Your task to perform on an android device: Open Google Maps and go to "Timeline" Image 0: 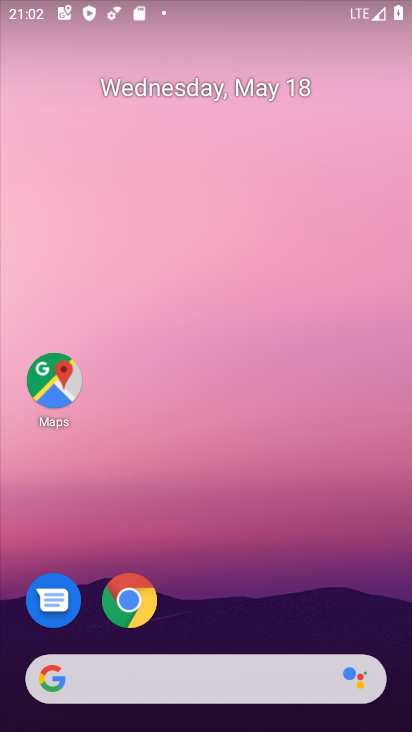
Step 0: click (41, 372)
Your task to perform on an android device: Open Google Maps and go to "Timeline" Image 1: 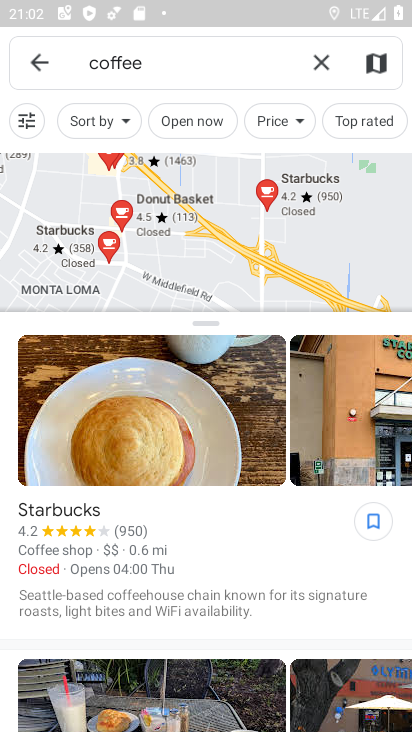
Step 1: click (35, 59)
Your task to perform on an android device: Open Google Maps and go to "Timeline" Image 2: 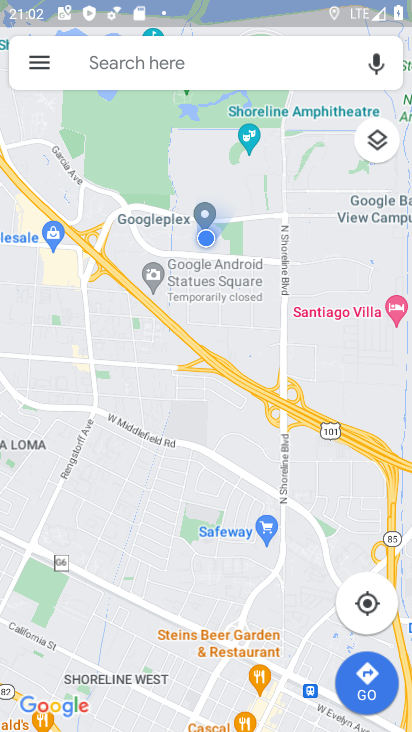
Step 2: click (35, 59)
Your task to perform on an android device: Open Google Maps and go to "Timeline" Image 3: 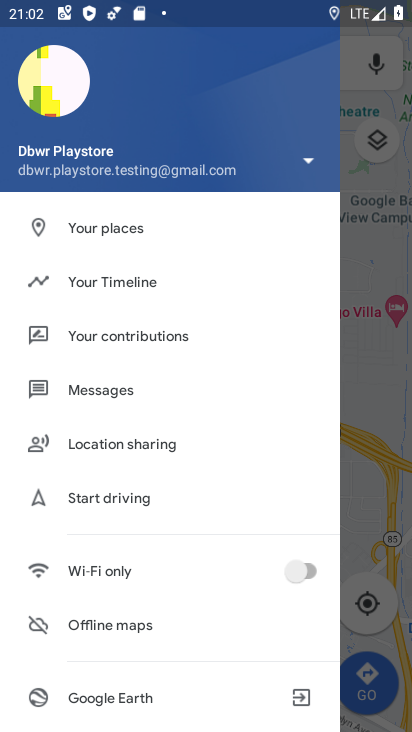
Step 3: click (98, 275)
Your task to perform on an android device: Open Google Maps and go to "Timeline" Image 4: 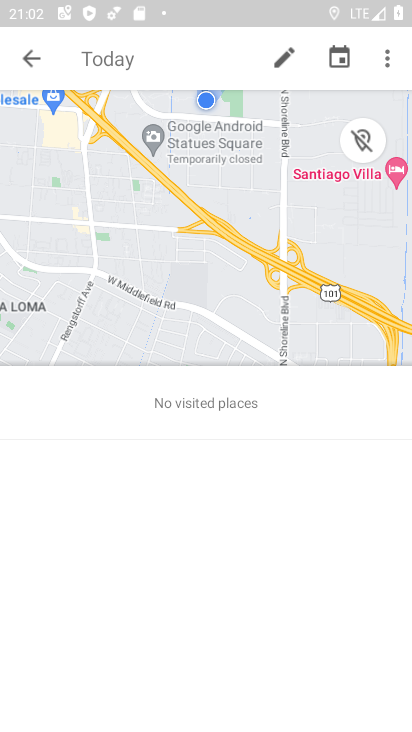
Step 4: task complete